Your task to perform on an android device: turn off sleep mode Image 0: 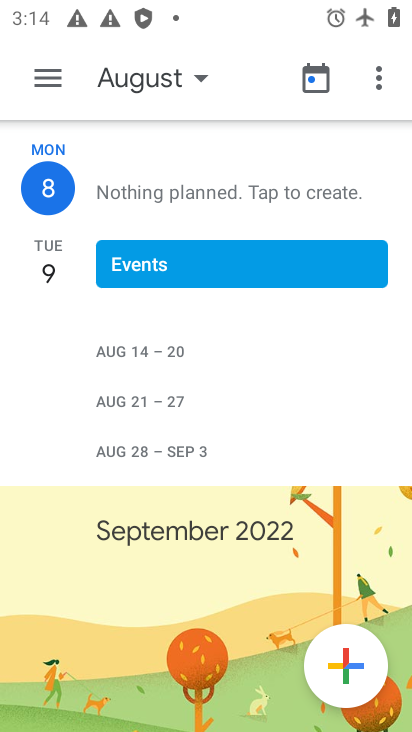
Step 0: press home button
Your task to perform on an android device: turn off sleep mode Image 1: 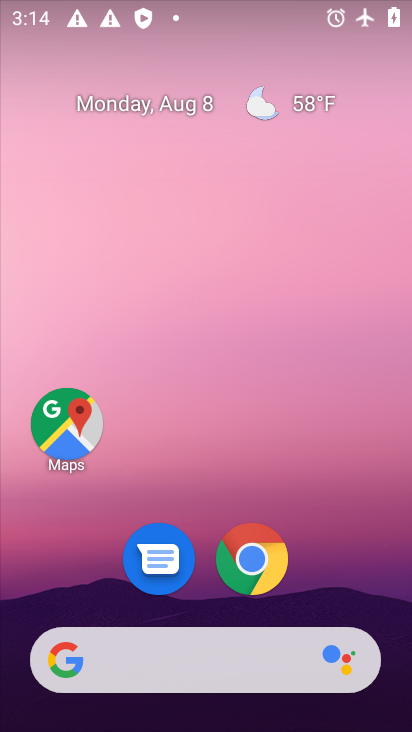
Step 1: drag from (157, 677) to (408, 429)
Your task to perform on an android device: turn off sleep mode Image 2: 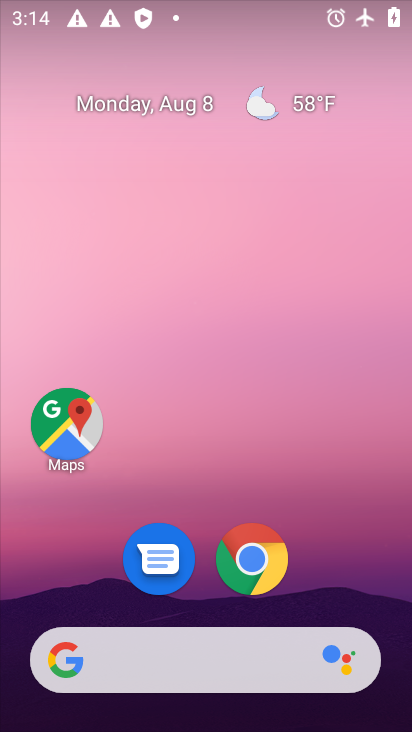
Step 2: drag from (262, 675) to (286, 231)
Your task to perform on an android device: turn off sleep mode Image 3: 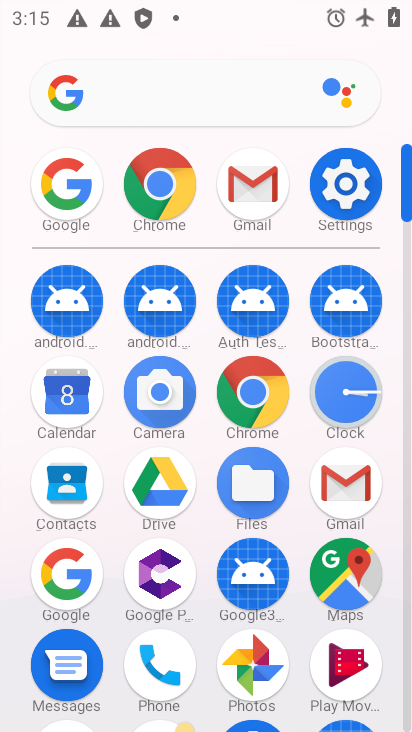
Step 3: click (346, 185)
Your task to perform on an android device: turn off sleep mode Image 4: 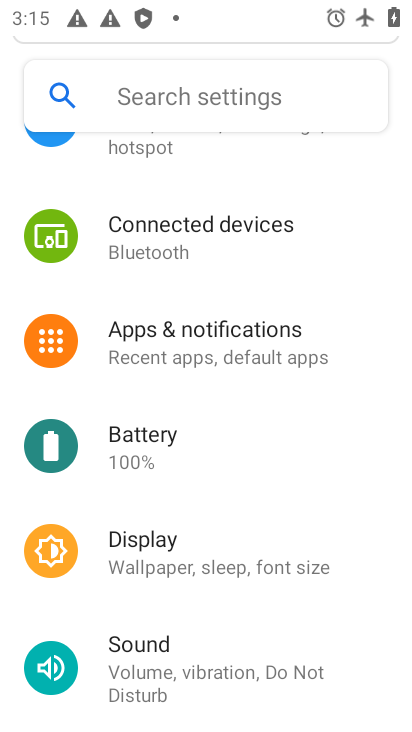
Step 4: click (213, 575)
Your task to perform on an android device: turn off sleep mode Image 5: 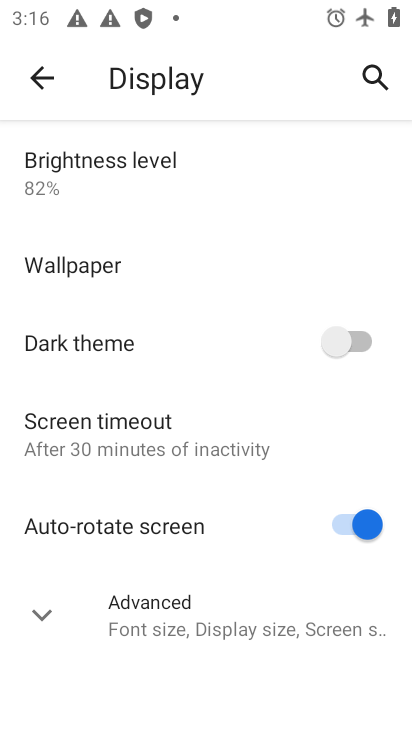
Step 5: click (106, 439)
Your task to perform on an android device: turn off sleep mode Image 6: 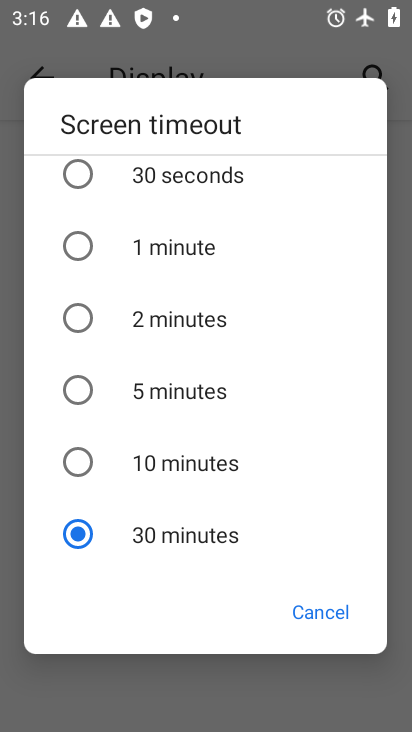
Step 6: click (326, 622)
Your task to perform on an android device: turn off sleep mode Image 7: 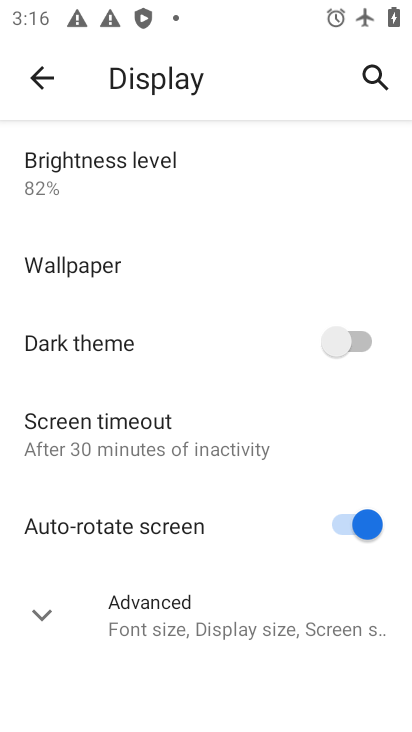
Step 7: task complete